Your task to perform on an android device: Search for the best rated running shoes on Nike.com Image 0: 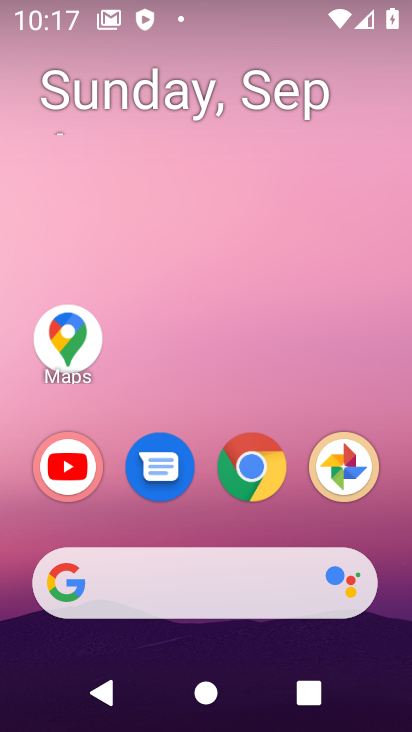
Step 0: click (270, 466)
Your task to perform on an android device: Search for the best rated running shoes on Nike.com Image 1: 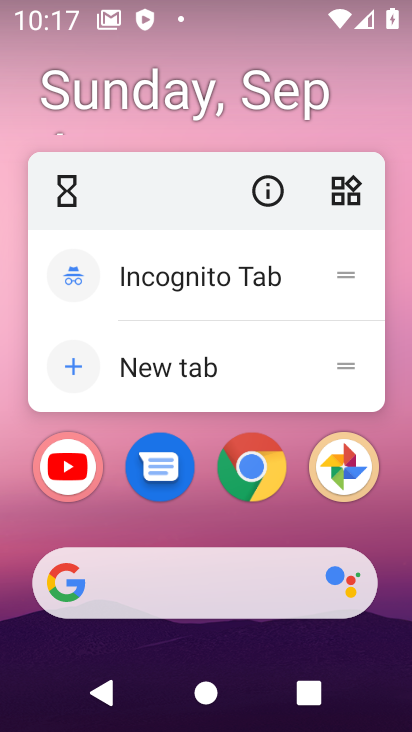
Step 1: click (259, 463)
Your task to perform on an android device: Search for the best rated running shoes on Nike.com Image 2: 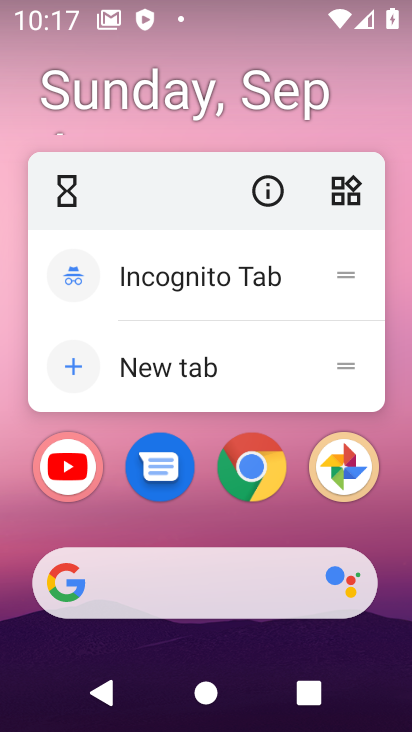
Step 2: click (255, 472)
Your task to perform on an android device: Search for the best rated running shoes on Nike.com Image 3: 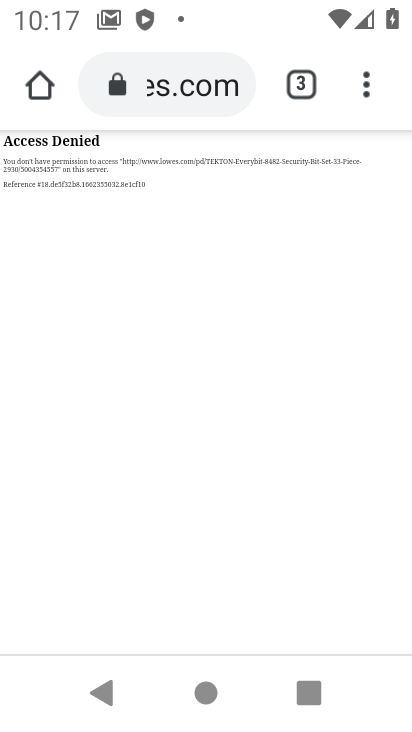
Step 3: click (232, 83)
Your task to perform on an android device: Search for the best rated running shoes on Nike.com Image 4: 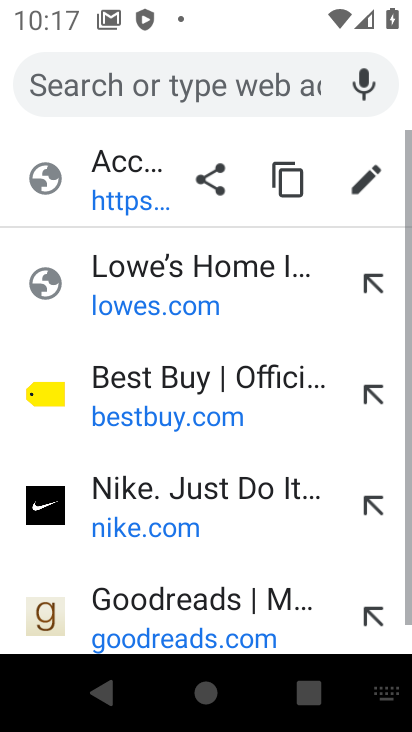
Step 4: click (86, 497)
Your task to perform on an android device: Search for the best rated running shoes on Nike.com Image 5: 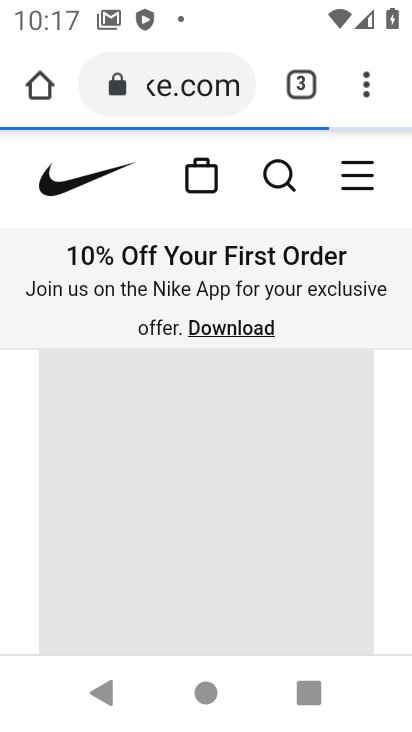
Step 5: click (273, 190)
Your task to perform on an android device: Search for the best rated running shoes on Nike.com Image 6: 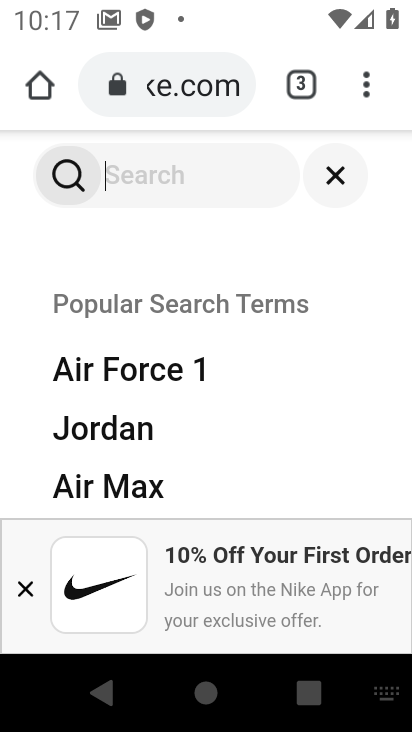
Step 6: type "running shoes"
Your task to perform on an android device: Search for the best rated running shoes on Nike.com Image 7: 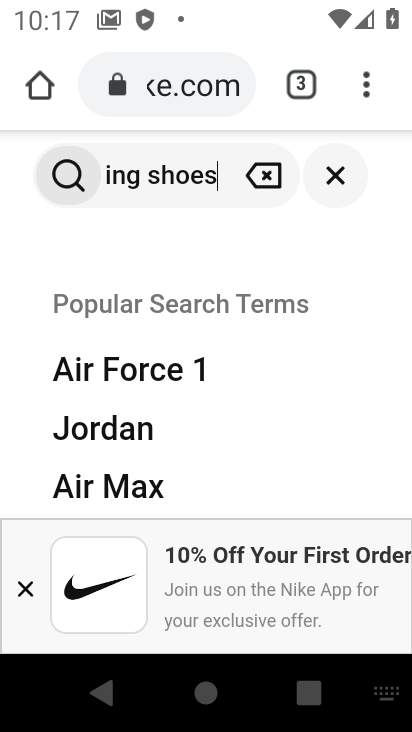
Step 7: type ""
Your task to perform on an android device: Search for the best rated running shoes on Nike.com Image 8: 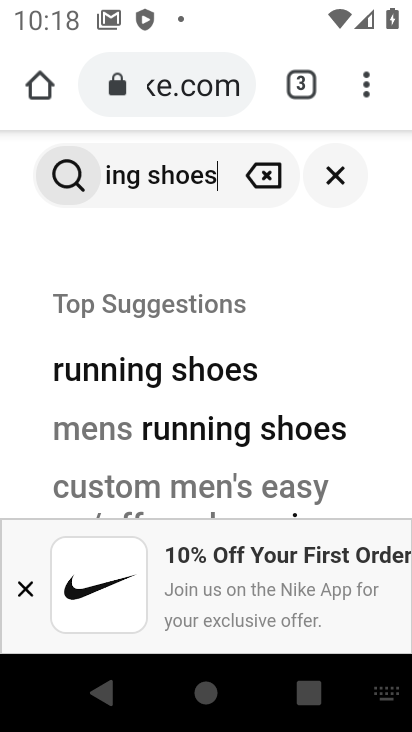
Step 8: drag from (268, 395) to (325, 190)
Your task to perform on an android device: Search for the best rated running shoes on Nike.com Image 9: 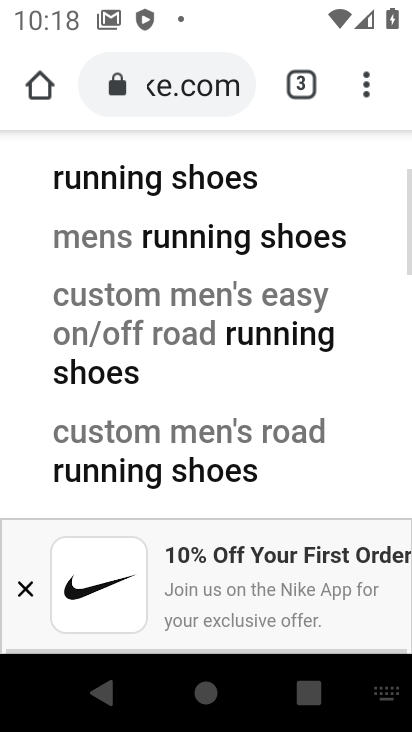
Step 9: drag from (302, 427) to (299, 216)
Your task to perform on an android device: Search for the best rated running shoes on Nike.com Image 10: 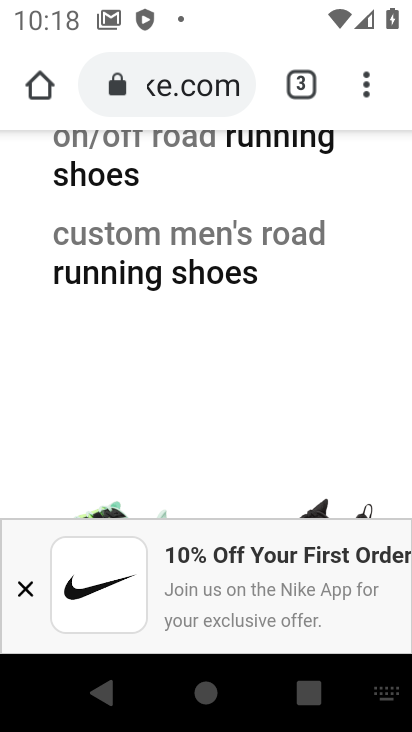
Step 10: drag from (285, 239) to (336, 163)
Your task to perform on an android device: Search for the best rated running shoes on Nike.com Image 11: 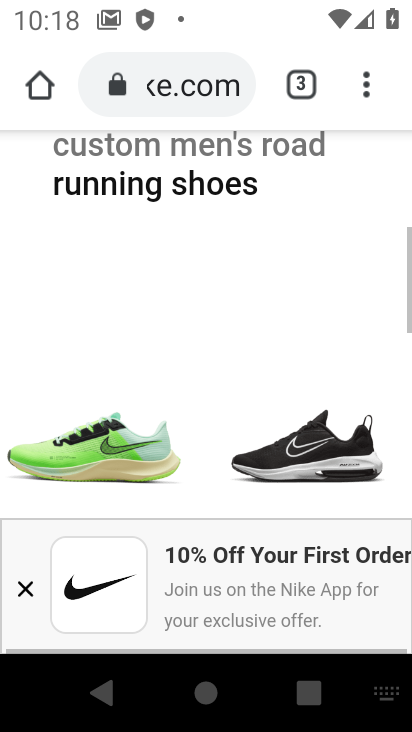
Step 11: drag from (357, 236) to (370, 181)
Your task to perform on an android device: Search for the best rated running shoes on Nike.com Image 12: 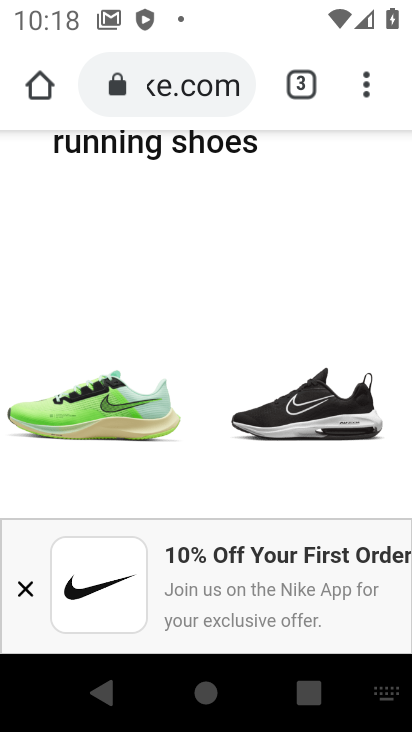
Step 12: drag from (174, 249) to (198, 168)
Your task to perform on an android device: Search for the best rated running shoes on Nike.com Image 13: 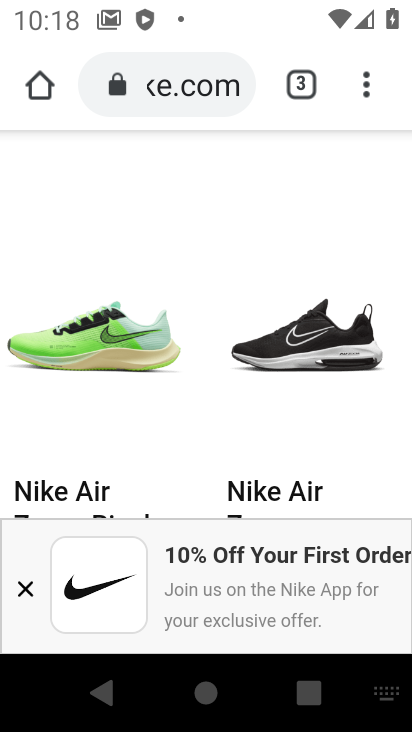
Step 13: click (126, 354)
Your task to perform on an android device: Search for the best rated running shoes on Nike.com Image 14: 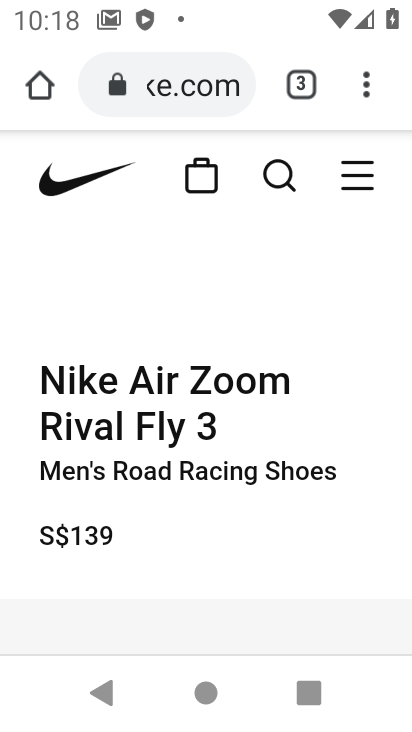
Step 14: drag from (321, 577) to (363, 231)
Your task to perform on an android device: Search for the best rated running shoes on Nike.com Image 15: 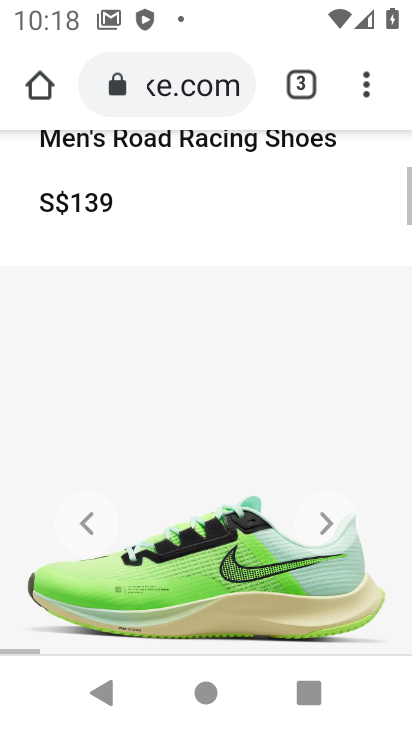
Step 15: drag from (322, 628) to (287, 148)
Your task to perform on an android device: Search for the best rated running shoes on Nike.com Image 16: 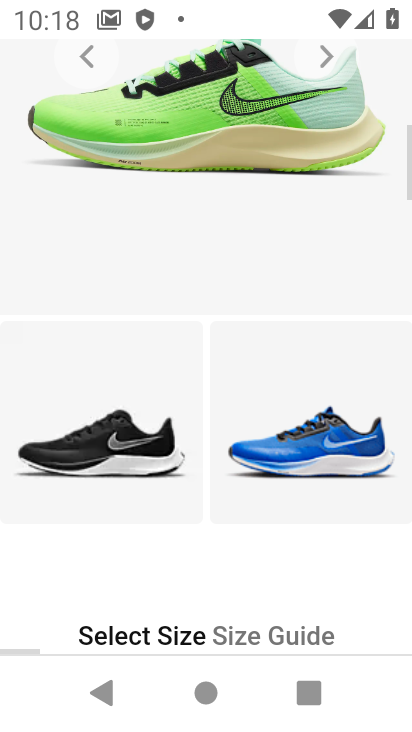
Step 16: drag from (323, 513) to (311, 181)
Your task to perform on an android device: Search for the best rated running shoes on Nike.com Image 17: 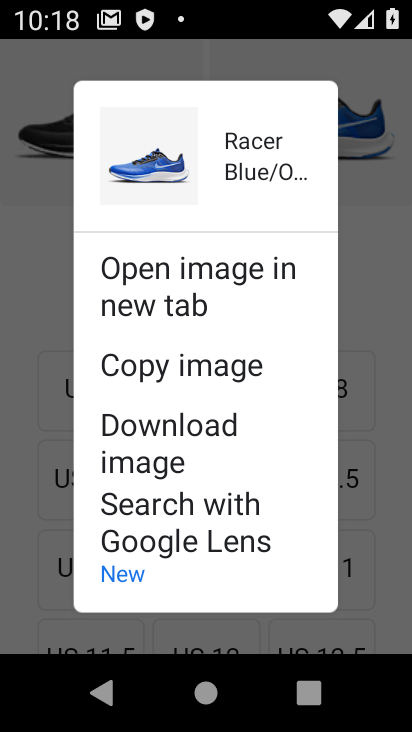
Step 17: drag from (400, 468) to (409, 168)
Your task to perform on an android device: Search for the best rated running shoes on Nike.com Image 18: 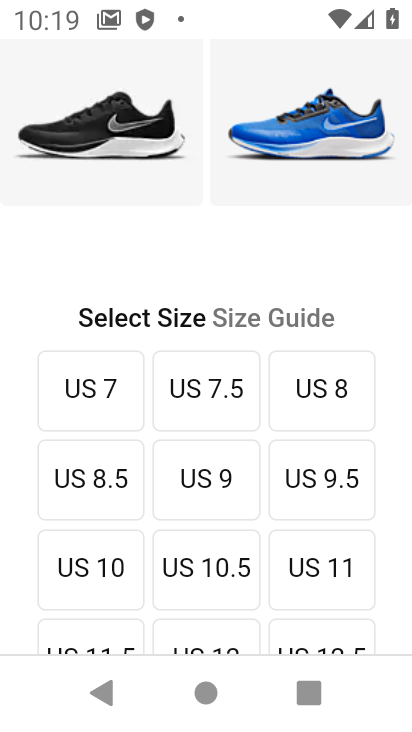
Step 18: drag from (392, 542) to (368, 126)
Your task to perform on an android device: Search for the best rated running shoes on Nike.com Image 19: 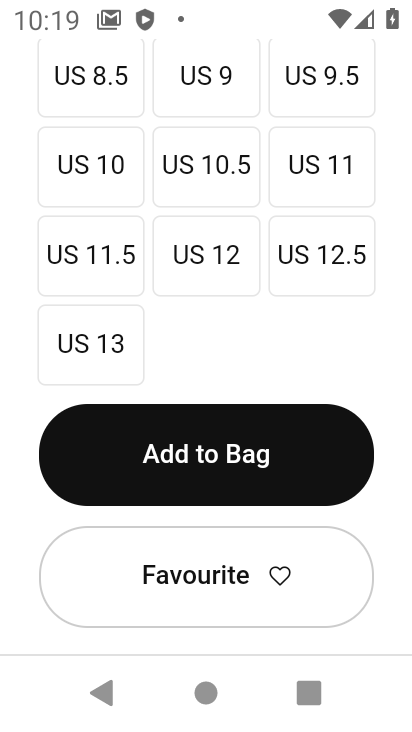
Step 19: drag from (382, 590) to (384, 199)
Your task to perform on an android device: Search for the best rated running shoes on Nike.com Image 20: 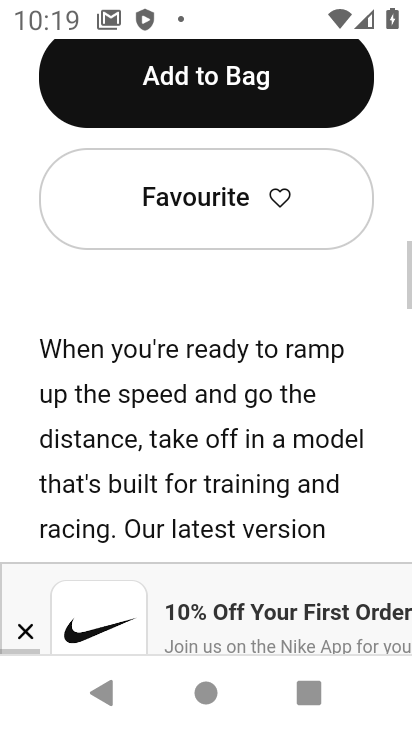
Step 20: drag from (338, 524) to (325, 166)
Your task to perform on an android device: Search for the best rated running shoes on Nike.com Image 21: 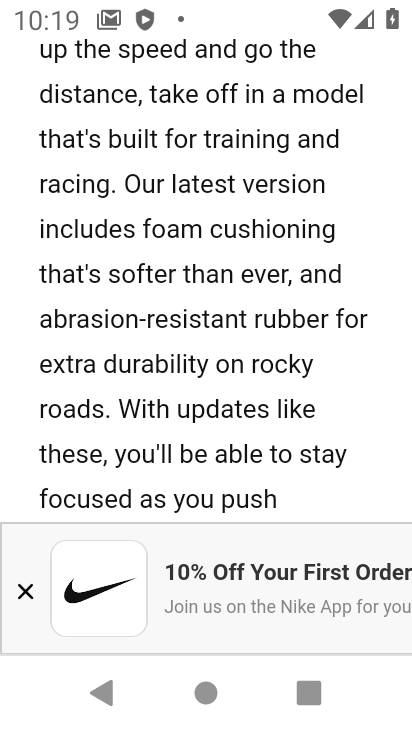
Step 21: click (27, 592)
Your task to perform on an android device: Search for the best rated running shoes on Nike.com Image 22: 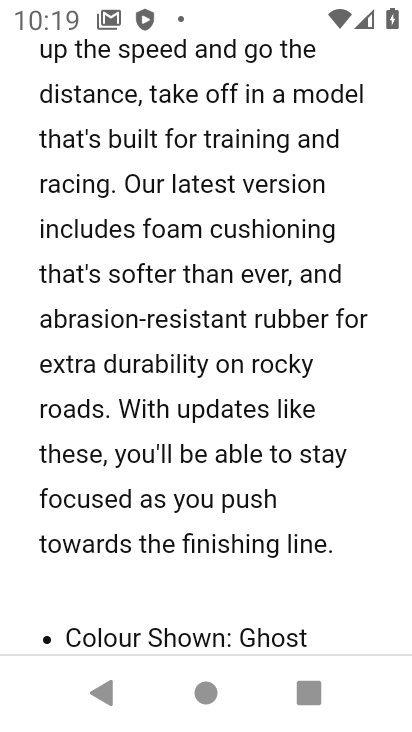
Step 22: drag from (251, 526) to (251, 42)
Your task to perform on an android device: Search for the best rated running shoes on Nike.com Image 23: 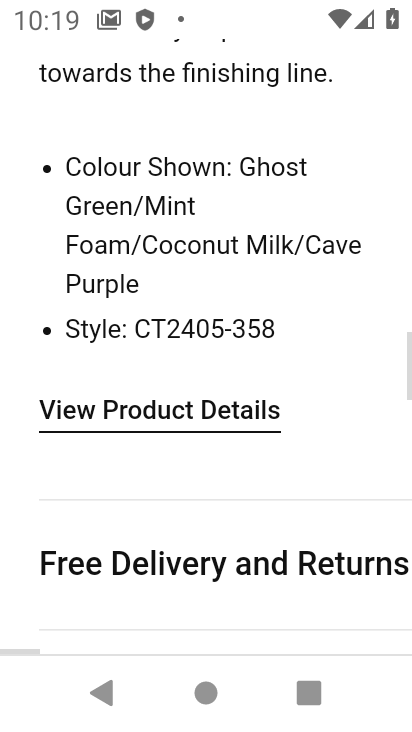
Step 23: drag from (264, 244) to (264, 85)
Your task to perform on an android device: Search for the best rated running shoes on Nike.com Image 24: 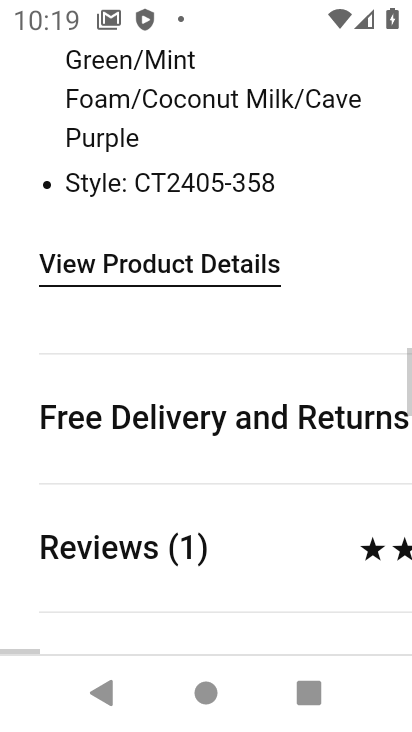
Step 24: drag from (198, 546) to (263, 143)
Your task to perform on an android device: Search for the best rated running shoes on Nike.com Image 25: 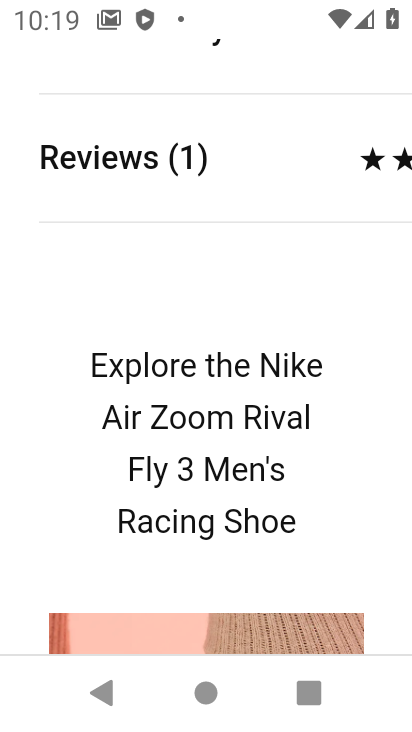
Step 25: drag from (223, 555) to (241, 267)
Your task to perform on an android device: Search for the best rated running shoes on Nike.com Image 26: 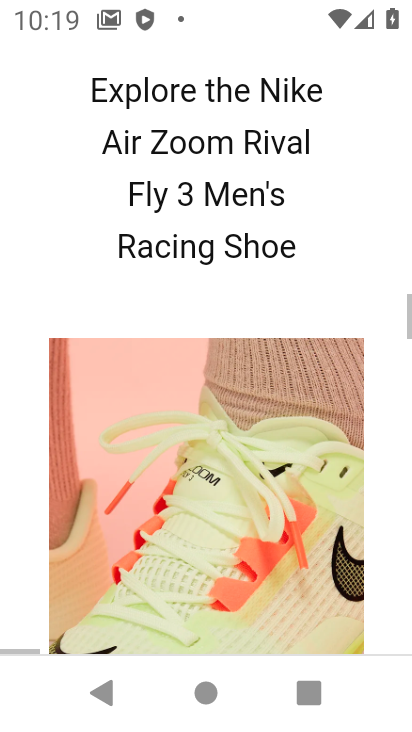
Step 26: drag from (198, 479) to (218, 282)
Your task to perform on an android device: Search for the best rated running shoes on Nike.com Image 27: 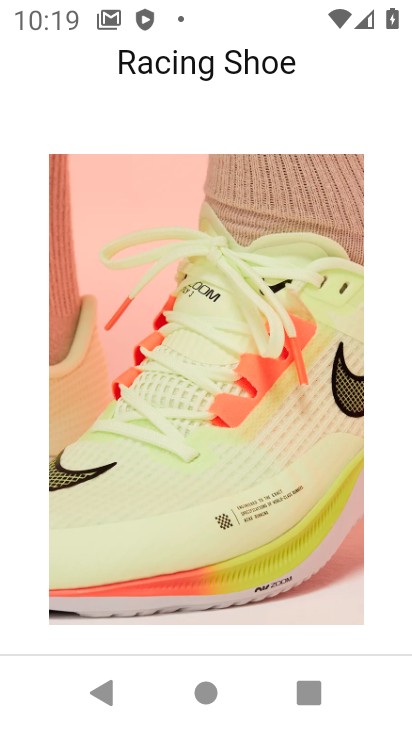
Step 27: click (145, 535)
Your task to perform on an android device: Search for the best rated running shoes on Nike.com Image 28: 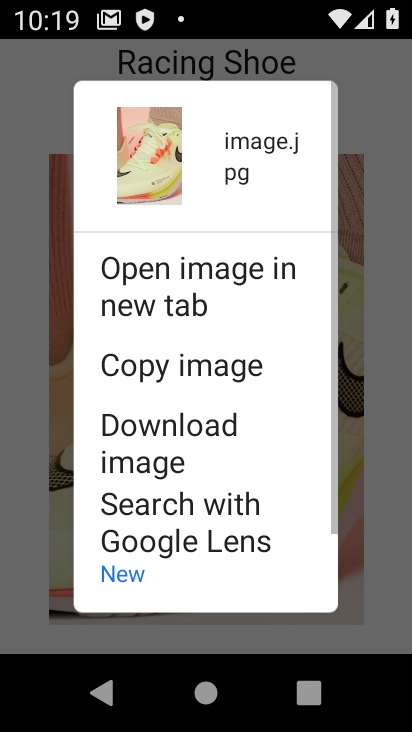
Step 28: click (390, 504)
Your task to perform on an android device: Search for the best rated running shoes on Nike.com Image 29: 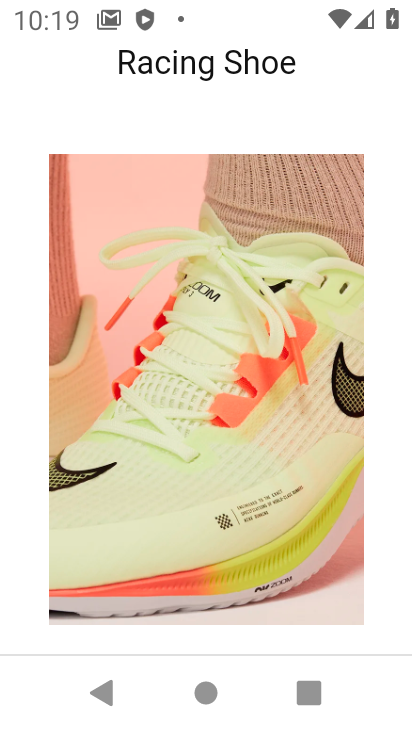
Step 29: task complete